Your task to perform on an android device: Check the weather Image 0: 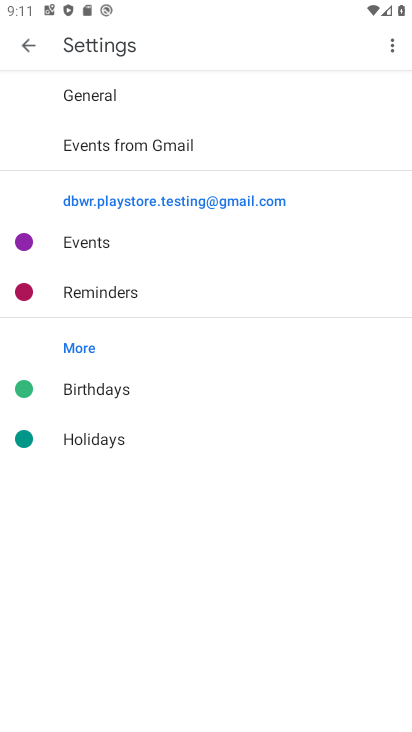
Step 0: press home button
Your task to perform on an android device: Check the weather Image 1: 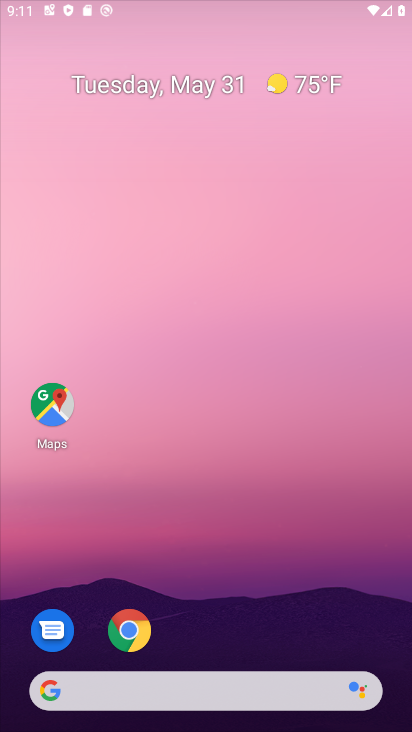
Step 1: drag from (248, 568) to (291, 157)
Your task to perform on an android device: Check the weather Image 2: 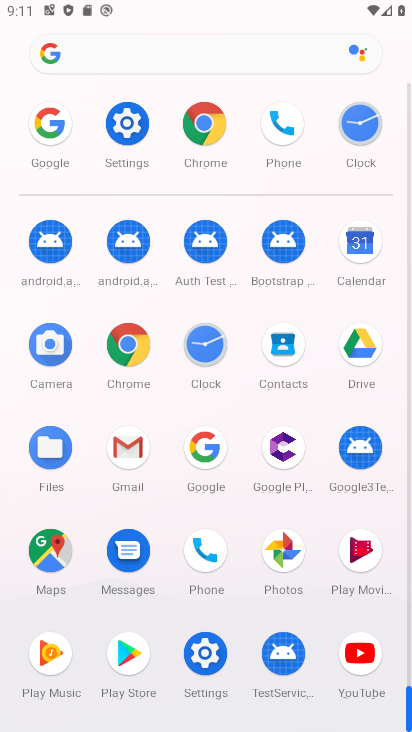
Step 2: click (203, 447)
Your task to perform on an android device: Check the weather Image 3: 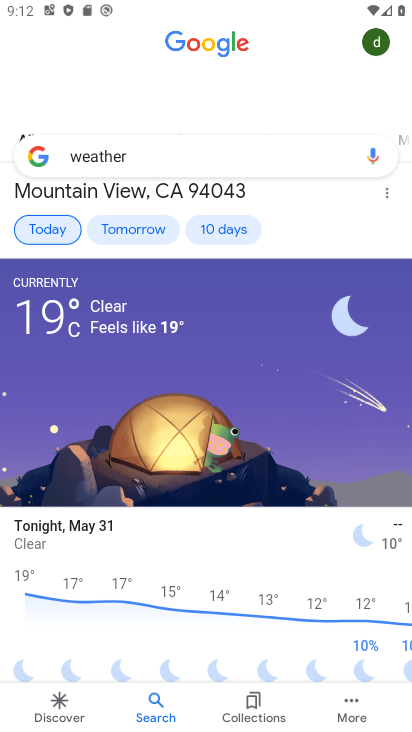
Step 3: task complete